Your task to perform on an android device: Open Amazon Image 0: 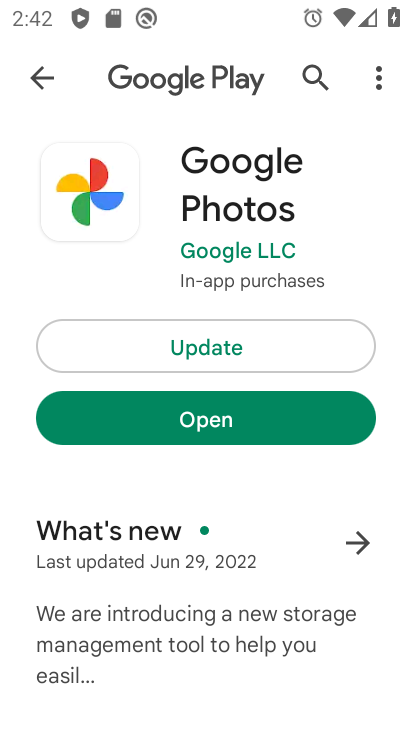
Step 0: press back button
Your task to perform on an android device: Open Amazon Image 1: 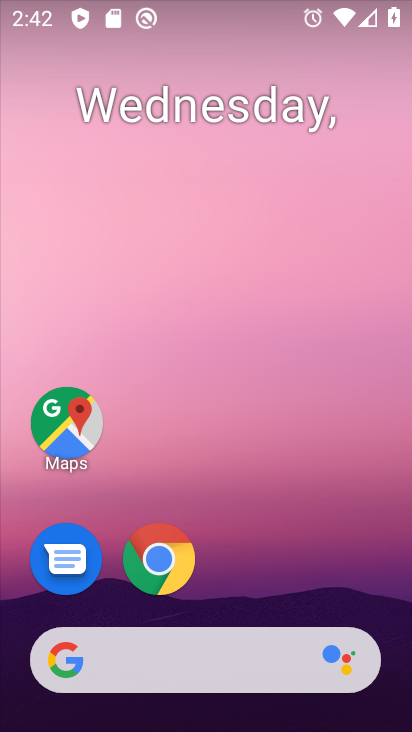
Step 1: click (135, 568)
Your task to perform on an android device: Open Amazon Image 2: 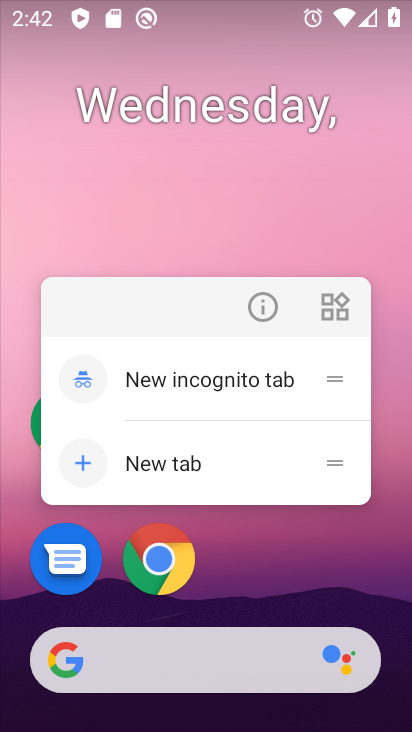
Step 2: click (158, 572)
Your task to perform on an android device: Open Amazon Image 3: 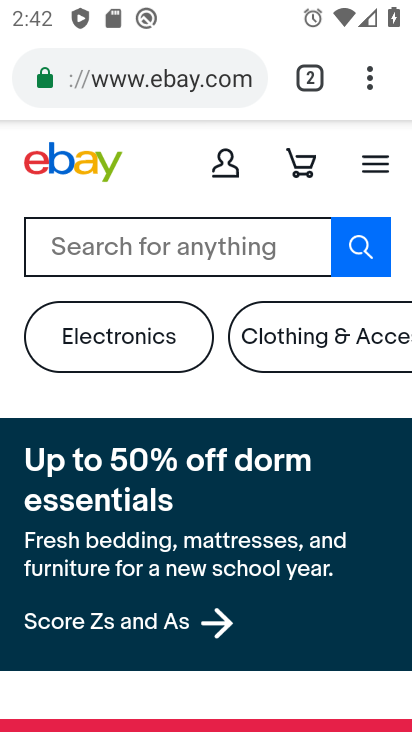
Step 3: click (306, 84)
Your task to perform on an android device: Open Amazon Image 4: 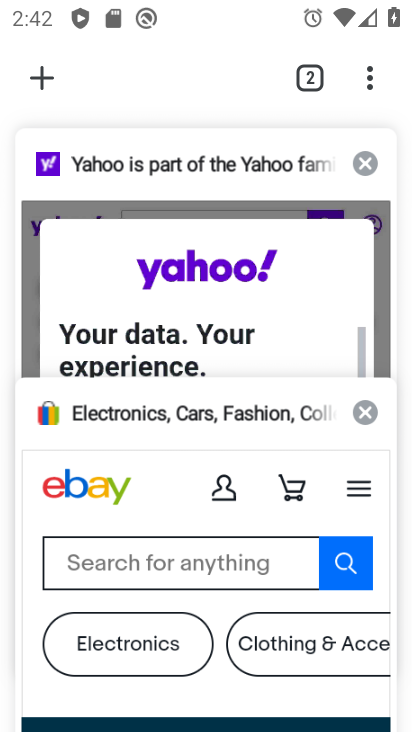
Step 4: click (38, 84)
Your task to perform on an android device: Open Amazon Image 5: 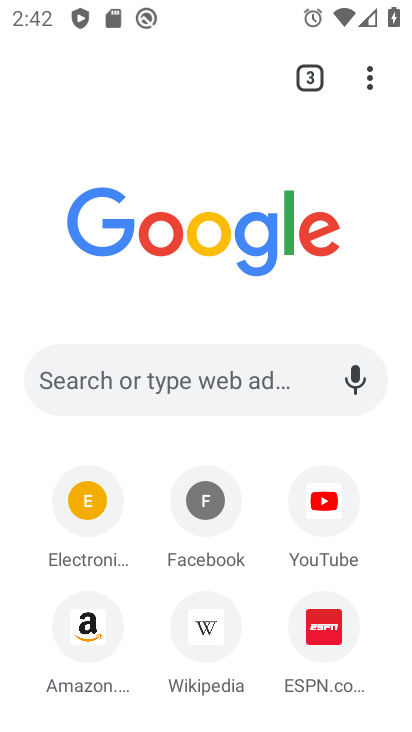
Step 5: click (72, 638)
Your task to perform on an android device: Open Amazon Image 6: 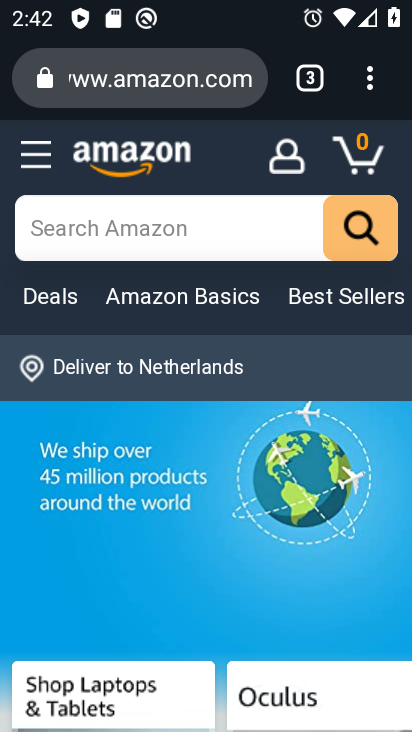
Step 6: task complete